Your task to perform on an android device: turn on the 24-hour format for clock Image 0: 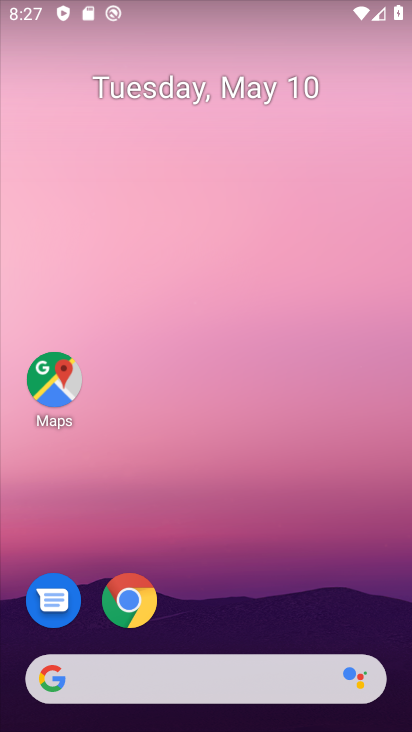
Step 0: drag from (202, 645) to (332, 109)
Your task to perform on an android device: turn on the 24-hour format for clock Image 1: 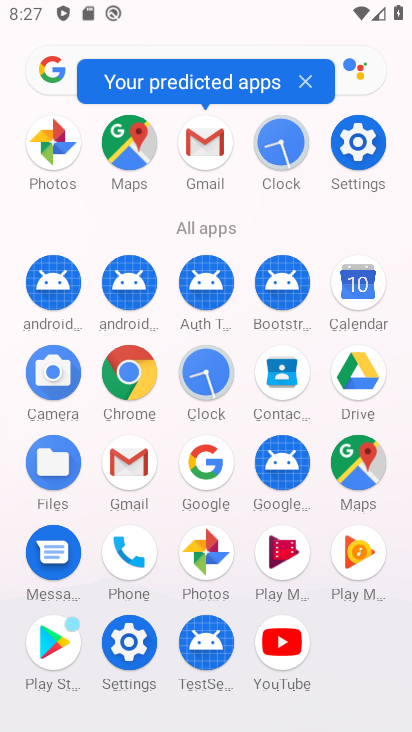
Step 1: click (129, 634)
Your task to perform on an android device: turn on the 24-hour format for clock Image 2: 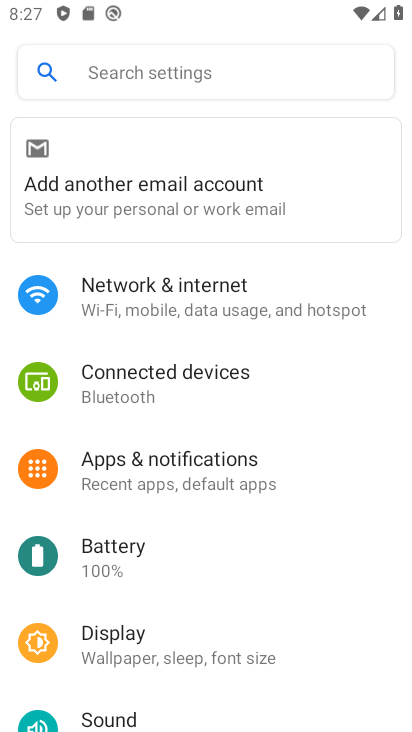
Step 2: press back button
Your task to perform on an android device: turn on the 24-hour format for clock Image 3: 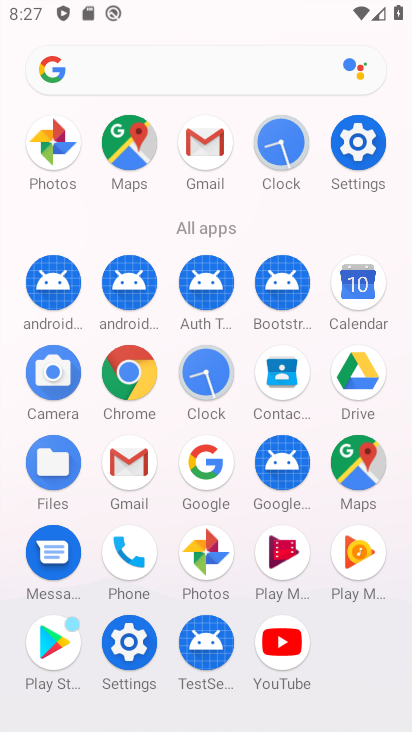
Step 3: click (207, 386)
Your task to perform on an android device: turn on the 24-hour format for clock Image 4: 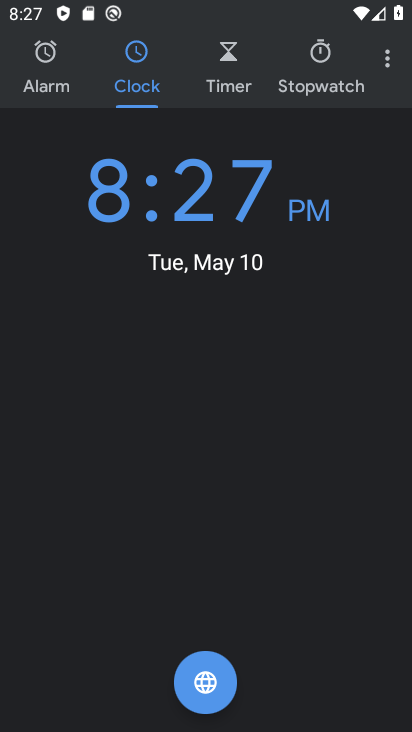
Step 4: click (388, 64)
Your task to perform on an android device: turn on the 24-hour format for clock Image 5: 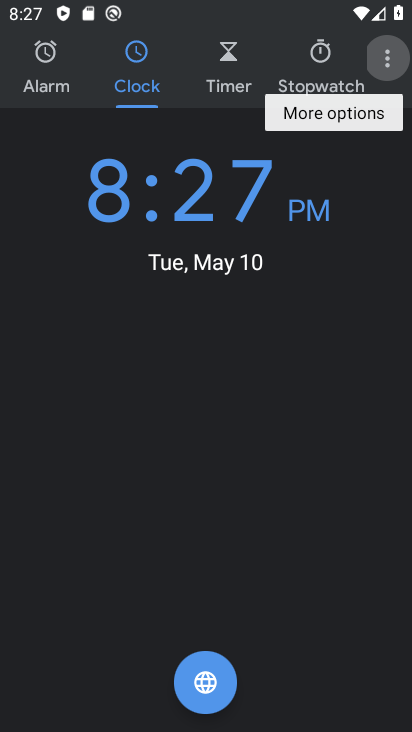
Step 5: click (388, 64)
Your task to perform on an android device: turn on the 24-hour format for clock Image 6: 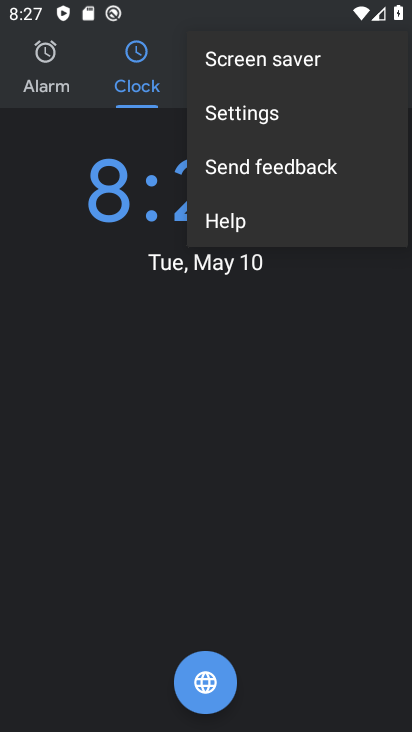
Step 6: click (327, 117)
Your task to perform on an android device: turn on the 24-hour format for clock Image 7: 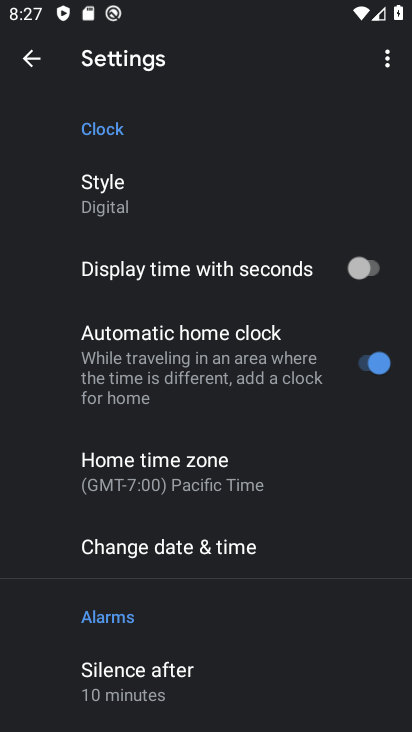
Step 7: click (184, 553)
Your task to perform on an android device: turn on the 24-hour format for clock Image 8: 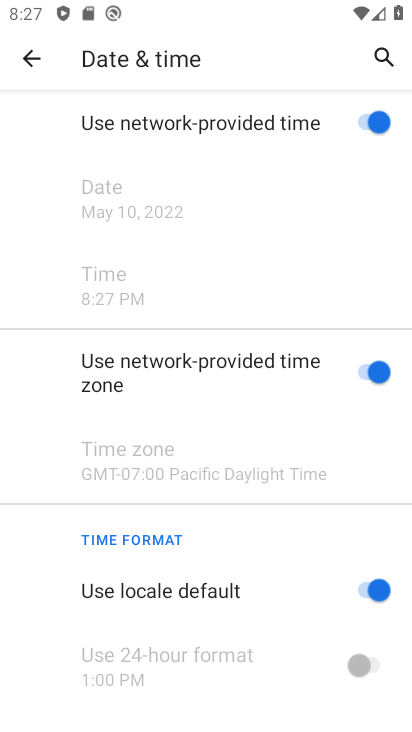
Step 8: drag from (165, 590) to (237, 290)
Your task to perform on an android device: turn on the 24-hour format for clock Image 9: 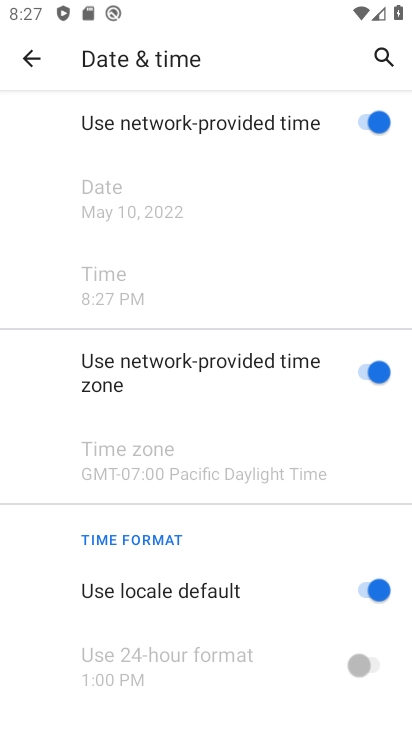
Step 9: click (354, 595)
Your task to perform on an android device: turn on the 24-hour format for clock Image 10: 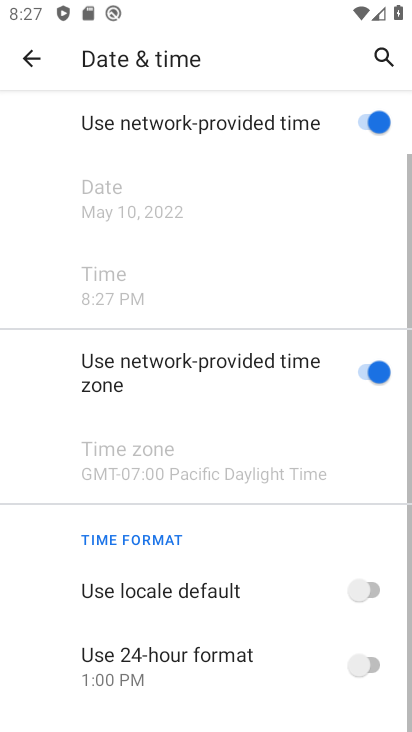
Step 10: click (386, 663)
Your task to perform on an android device: turn on the 24-hour format for clock Image 11: 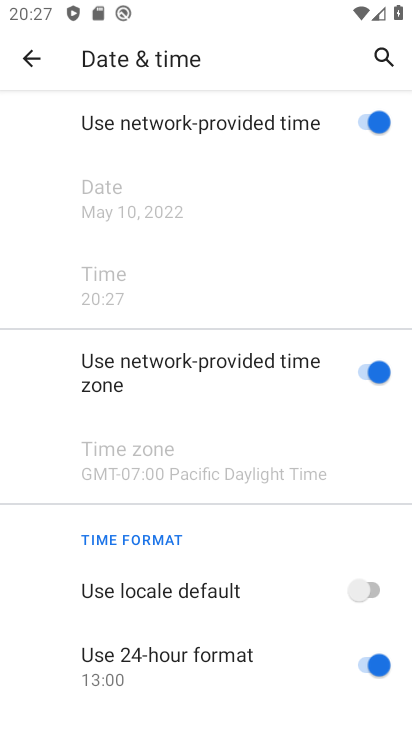
Step 11: task complete